Your task to perform on an android device: delete location history Image 0: 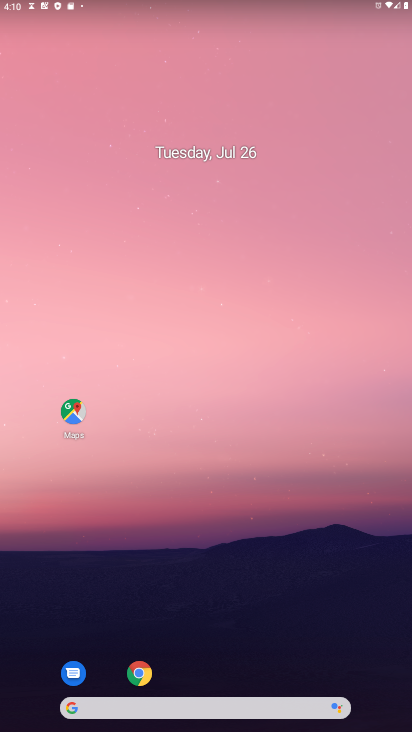
Step 0: click (71, 412)
Your task to perform on an android device: delete location history Image 1: 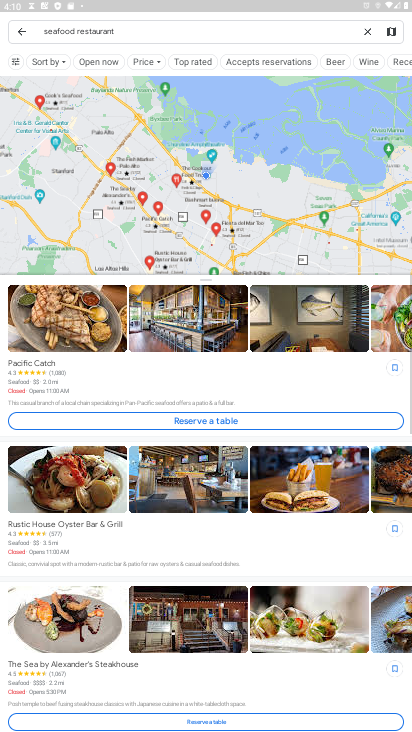
Step 1: click (367, 28)
Your task to perform on an android device: delete location history Image 2: 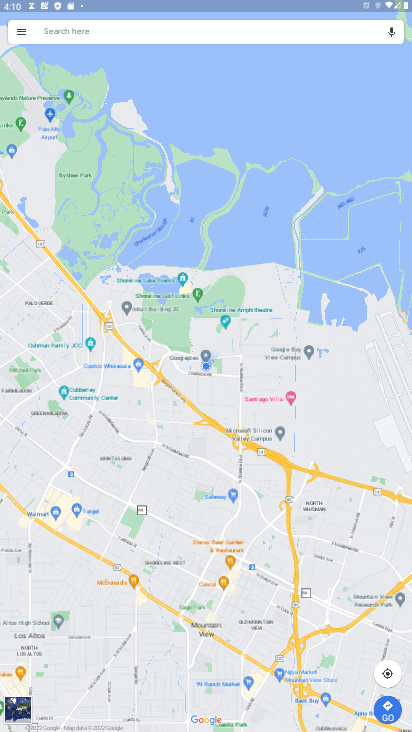
Step 2: click (22, 33)
Your task to perform on an android device: delete location history Image 3: 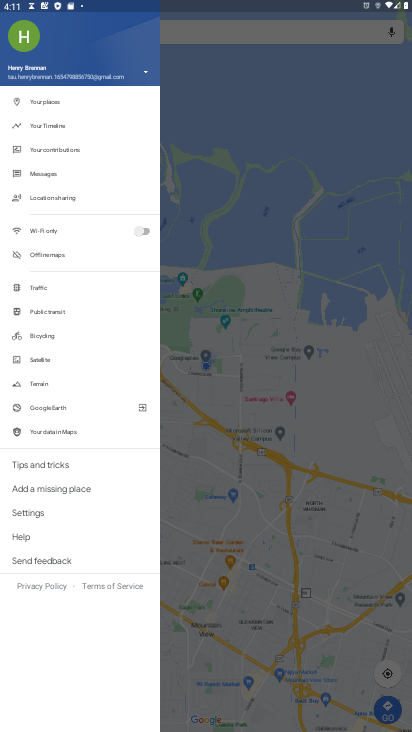
Step 3: click (30, 517)
Your task to perform on an android device: delete location history Image 4: 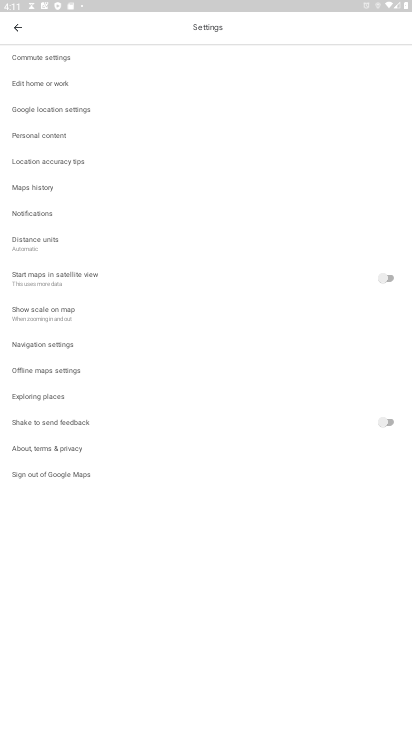
Step 4: click (50, 134)
Your task to perform on an android device: delete location history Image 5: 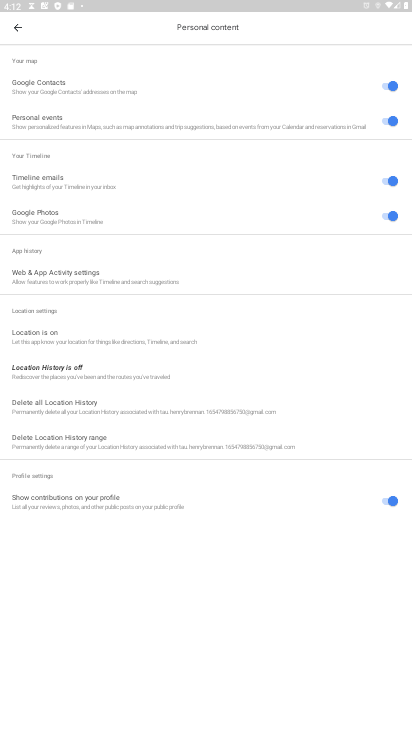
Step 5: click (117, 407)
Your task to perform on an android device: delete location history Image 6: 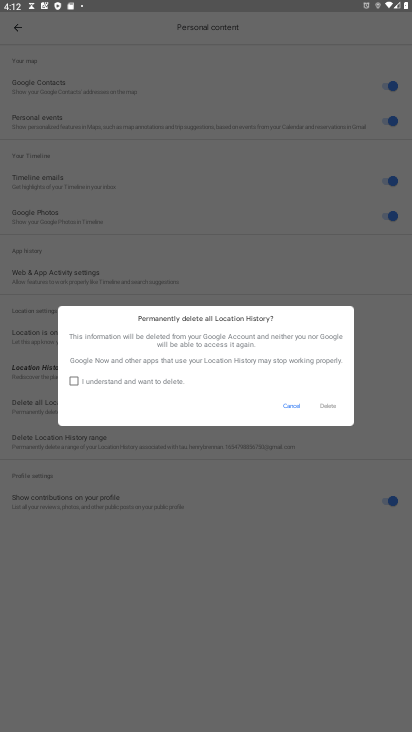
Step 6: click (73, 380)
Your task to perform on an android device: delete location history Image 7: 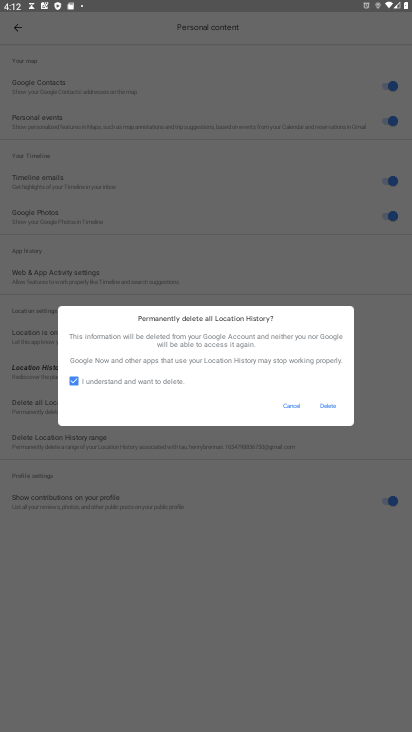
Step 7: click (328, 407)
Your task to perform on an android device: delete location history Image 8: 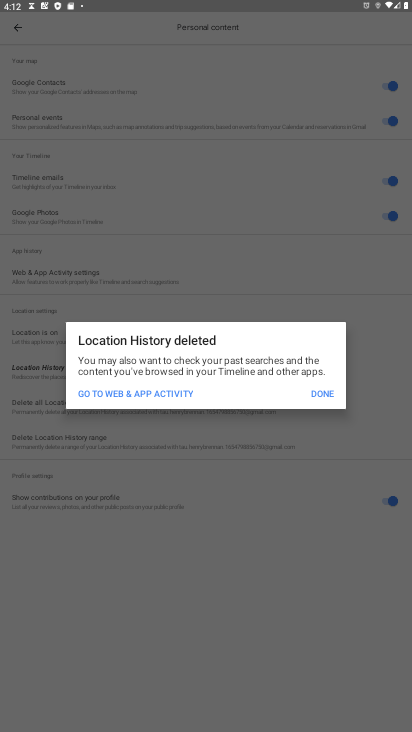
Step 8: click (321, 396)
Your task to perform on an android device: delete location history Image 9: 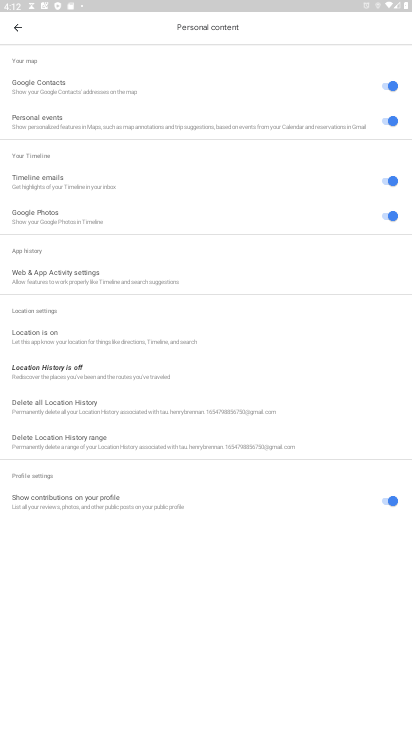
Step 9: task complete